Your task to perform on an android device: Open the stopwatch Image 0: 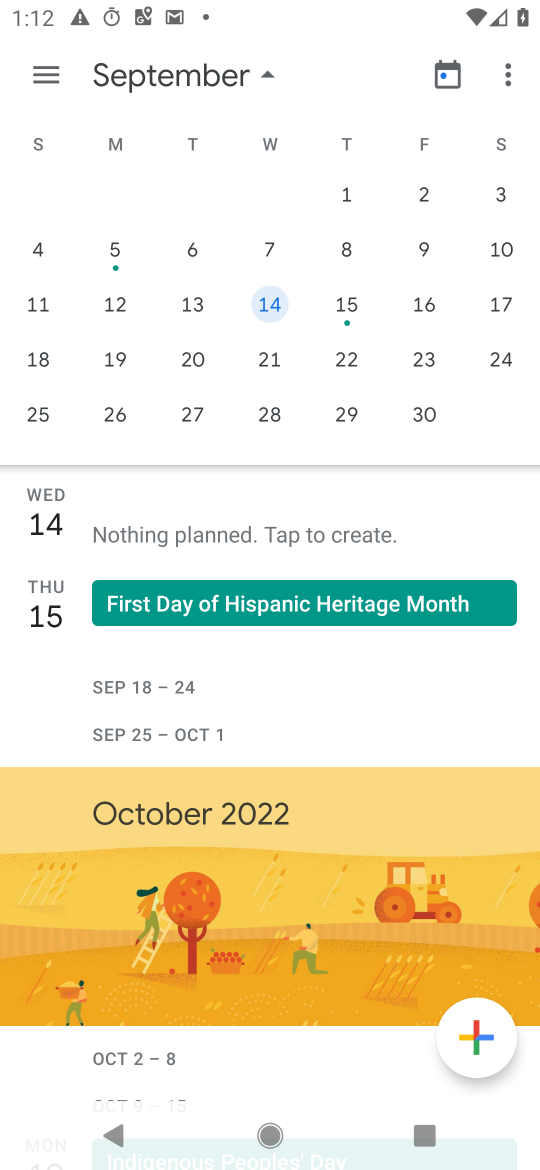
Step 0: drag from (378, 910) to (276, 190)
Your task to perform on an android device: Open the stopwatch Image 1: 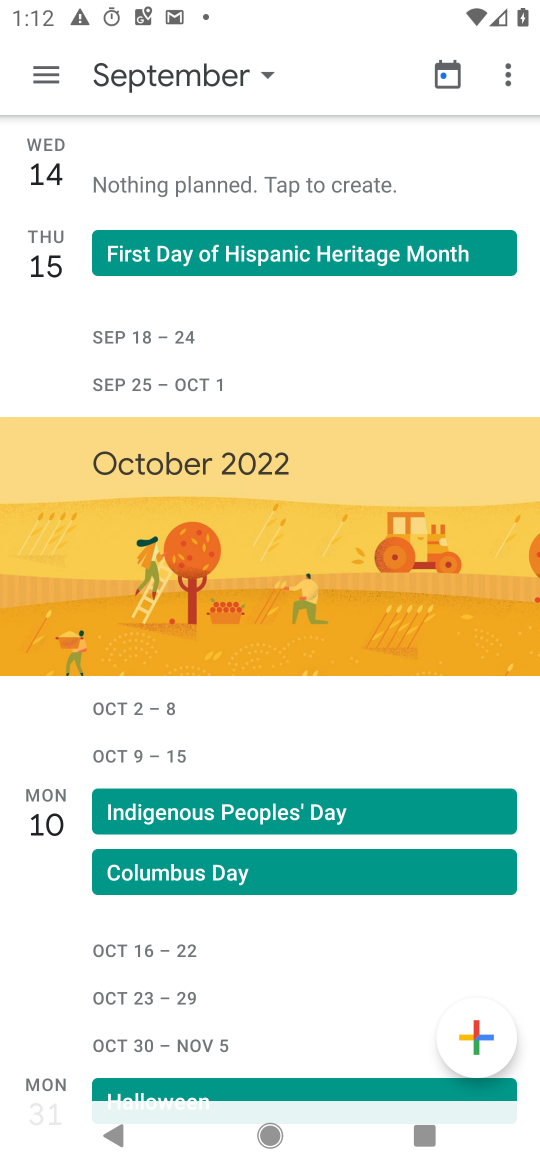
Step 1: click (233, 75)
Your task to perform on an android device: Open the stopwatch Image 2: 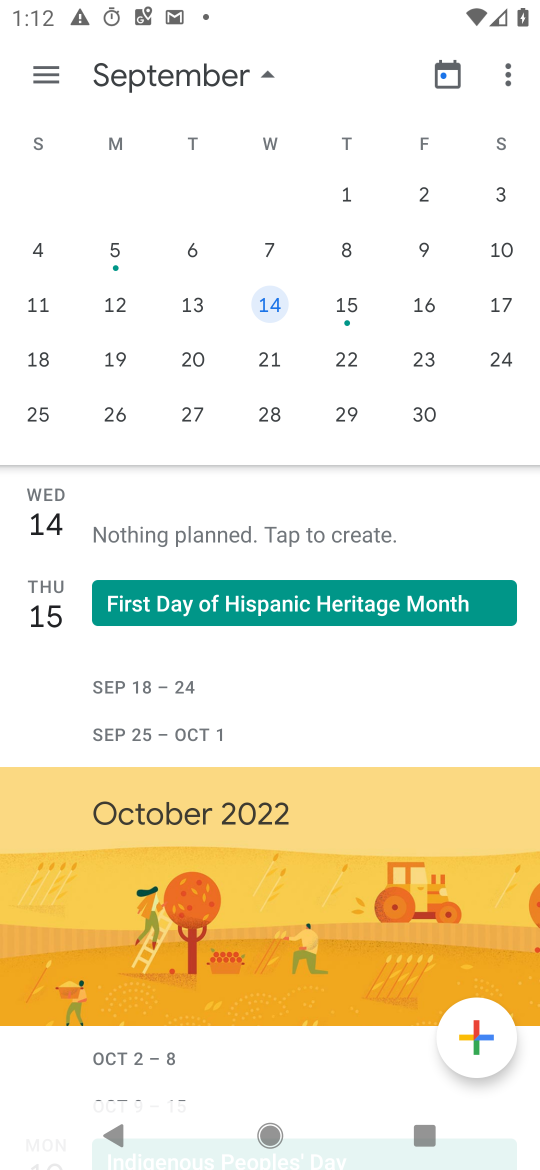
Step 2: press home button
Your task to perform on an android device: Open the stopwatch Image 3: 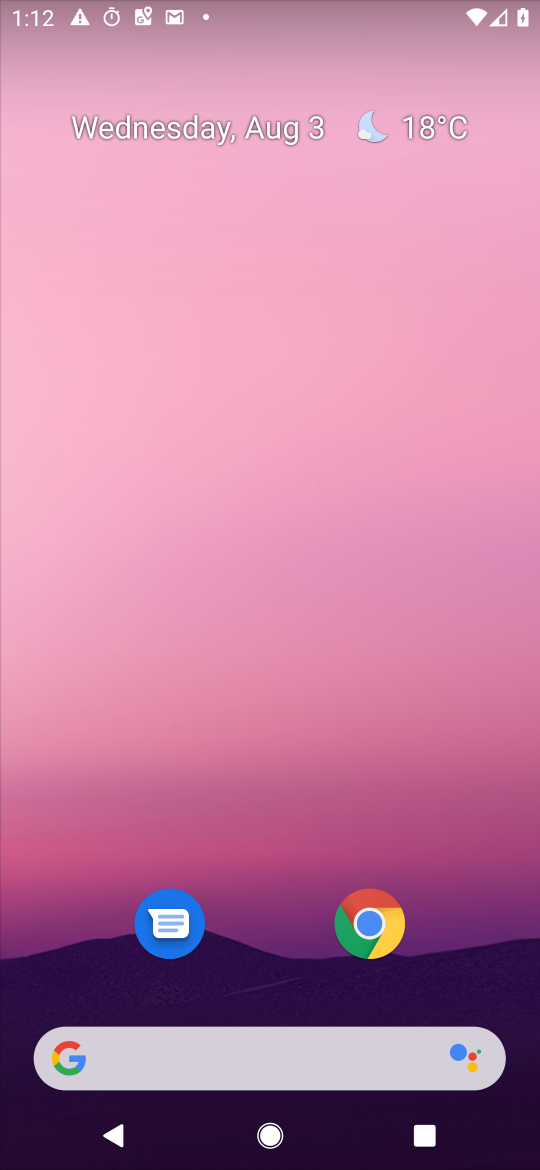
Step 3: drag from (319, 956) to (313, 33)
Your task to perform on an android device: Open the stopwatch Image 4: 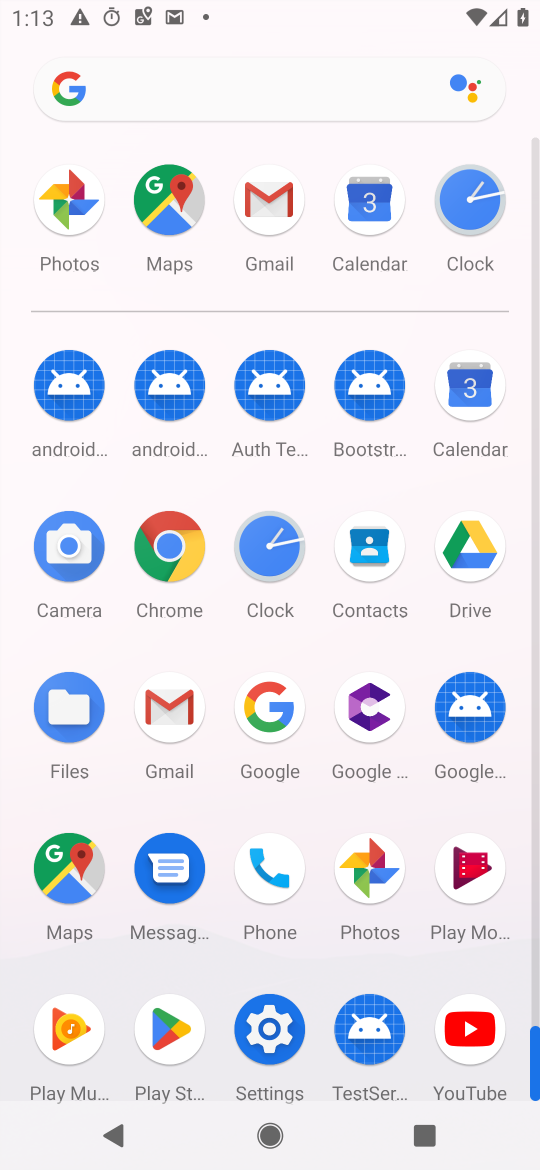
Step 4: click (262, 522)
Your task to perform on an android device: Open the stopwatch Image 5: 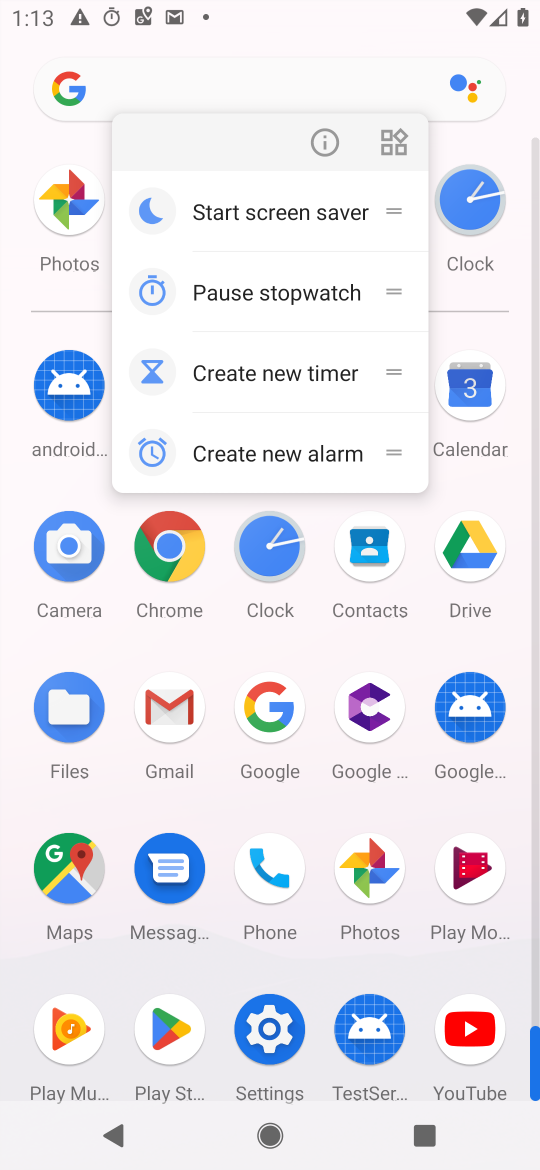
Step 5: click (323, 134)
Your task to perform on an android device: Open the stopwatch Image 6: 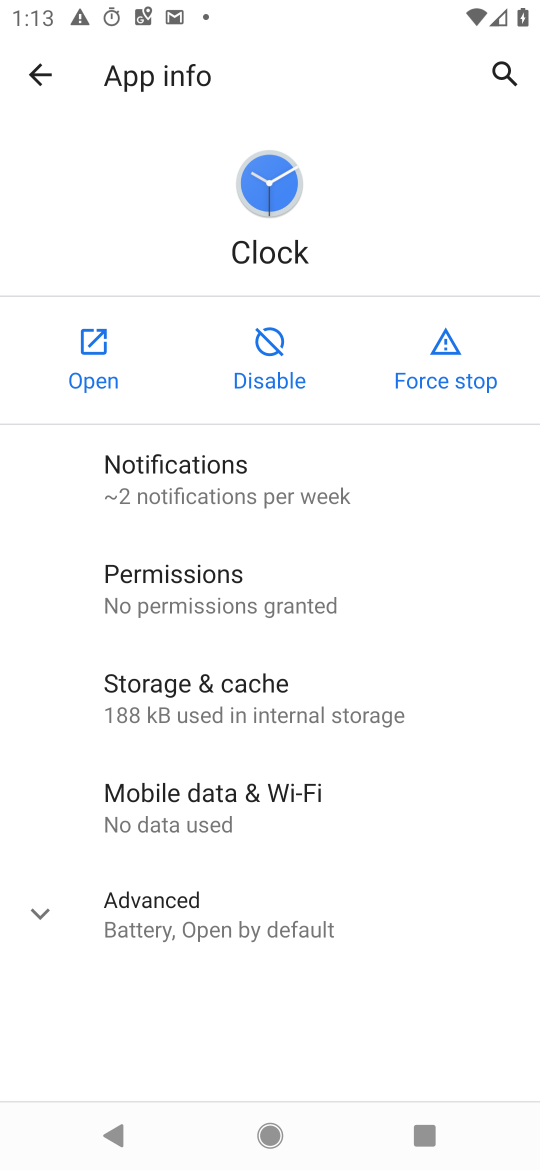
Step 6: click (129, 350)
Your task to perform on an android device: Open the stopwatch Image 7: 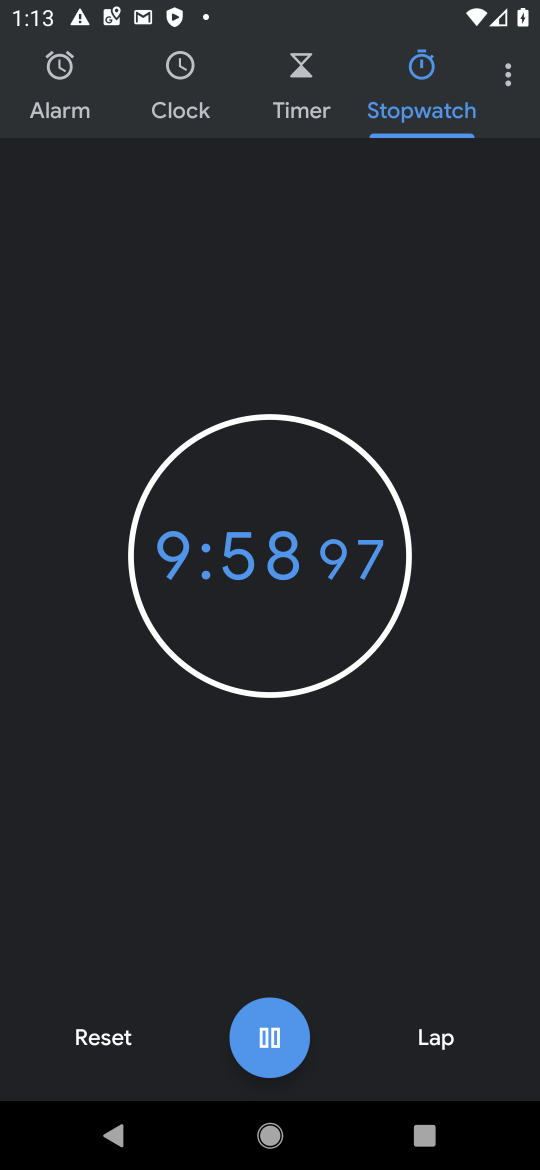
Step 7: drag from (352, 878) to (254, 237)
Your task to perform on an android device: Open the stopwatch Image 8: 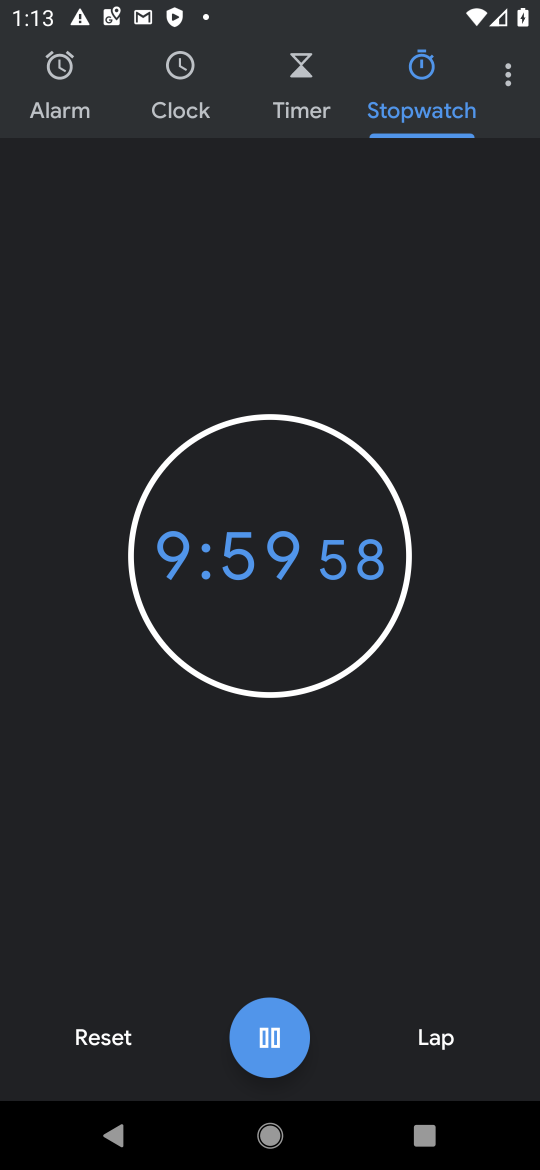
Step 8: click (403, 86)
Your task to perform on an android device: Open the stopwatch Image 9: 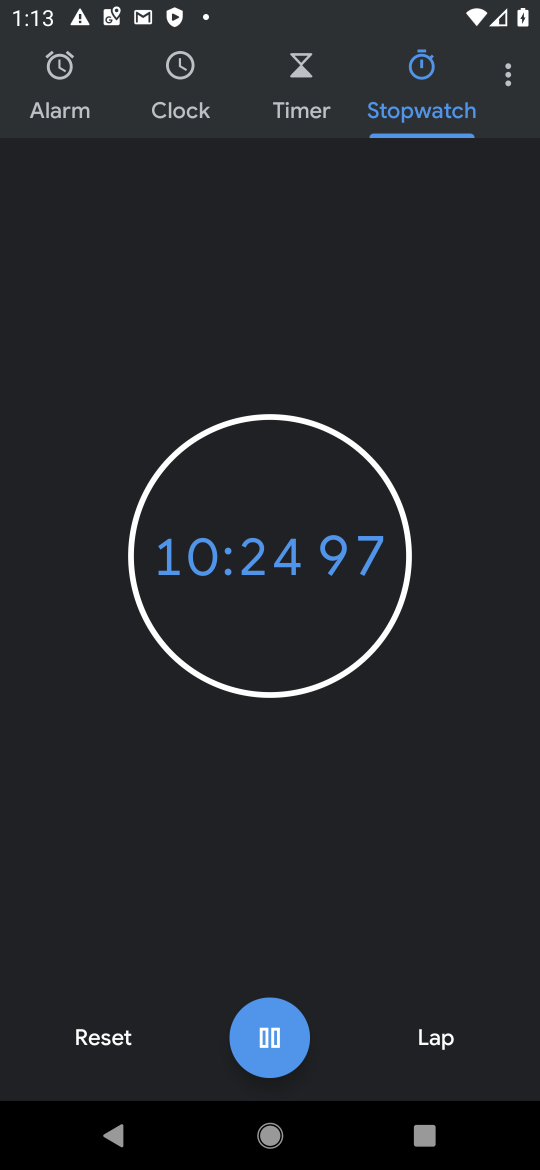
Step 9: task complete